Your task to perform on an android device: Search for Mexican restaurants on Maps Image 0: 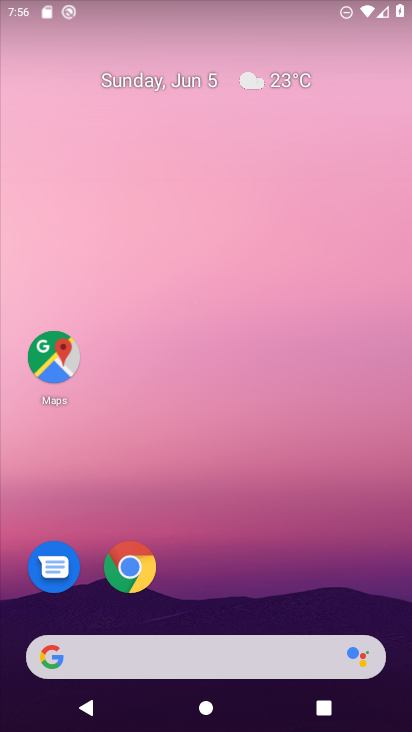
Step 0: drag from (393, 657) to (245, 13)
Your task to perform on an android device: Search for Mexican restaurants on Maps Image 1: 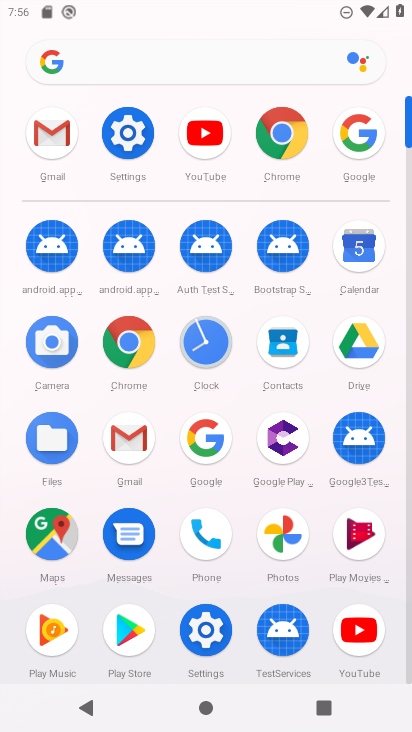
Step 1: click (52, 538)
Your task to perform on an android device: Search for Mexican restaurants on Maps Image 2: 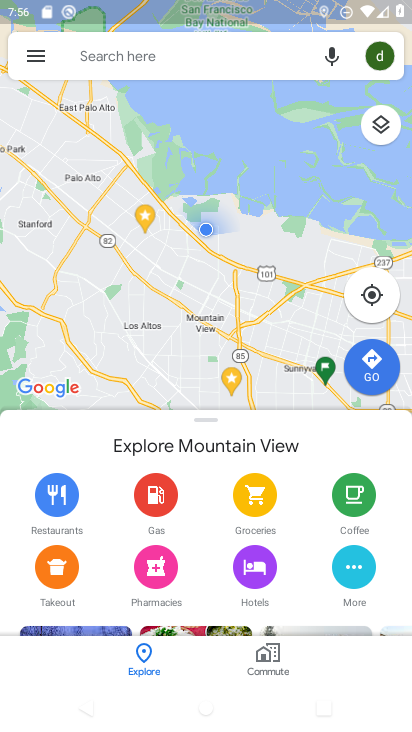
Step 2: click (210, 45)
Your task to perform on an android device: Search for Mexican restaurants on Maps Image 3: 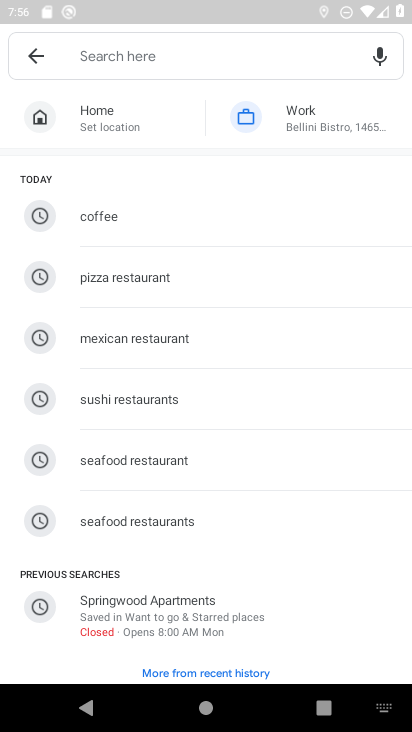
Step 3: click (161, 338)
Your task to perform on an android device: Search for Mexican restaurants on Maps Image 4: 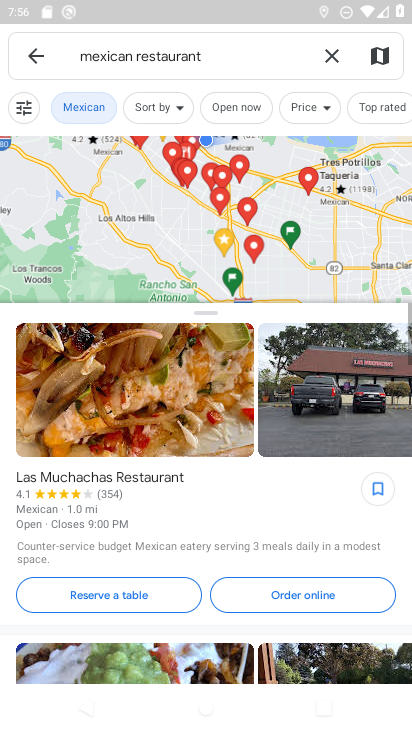
Step 4: task complete